Your task to perform on an android device: toggle location history Image 0: 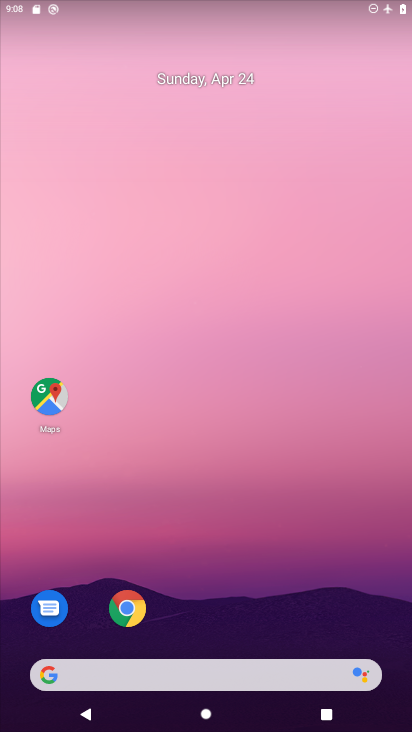
Step 0: click (125, 610)
Your task to perform on an android device: toggle location history Image 1: 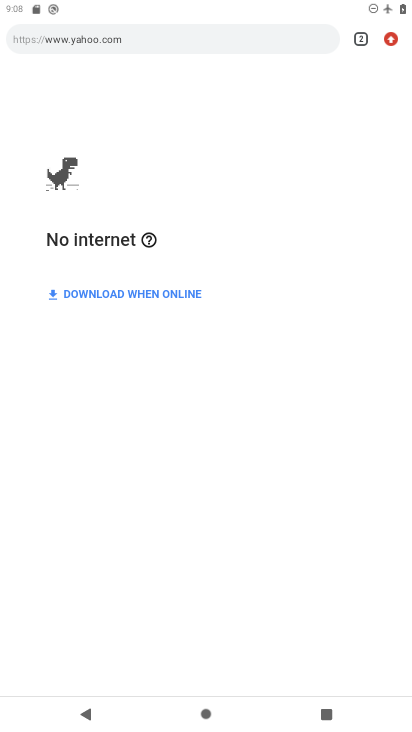
Step 1: drag from (390, 42) to (256, 483)
Your task to perform on an android device: toggle location history Image 2: 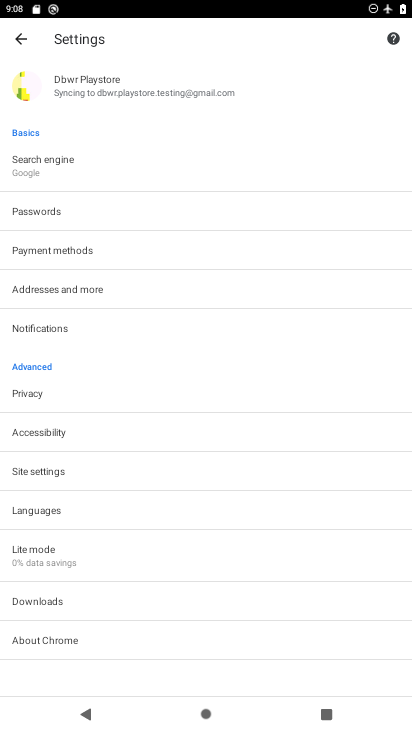
Step 2: drag from (145, 601) to (212, 307)
Your task to perform on an android device: toggle location history Image 3: 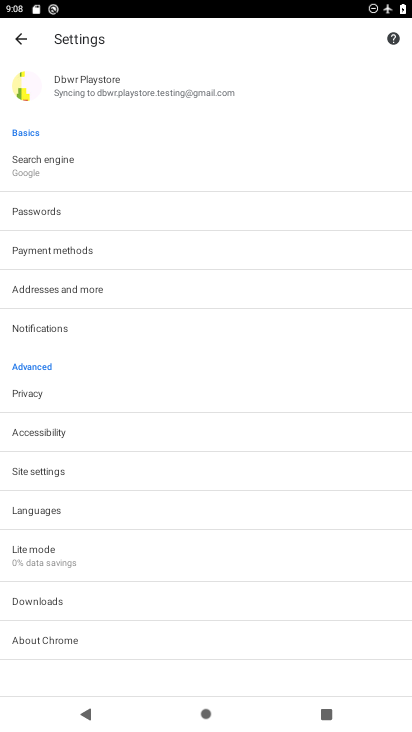
Step 3: press back button
Your task to perform on an android device: toggle location history Image 4: 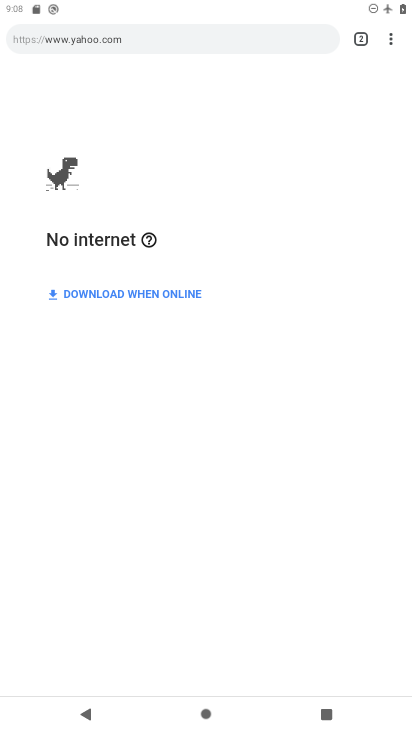
Step 4: press home button
Your task to perform on an android device: toggle location history Image 5: 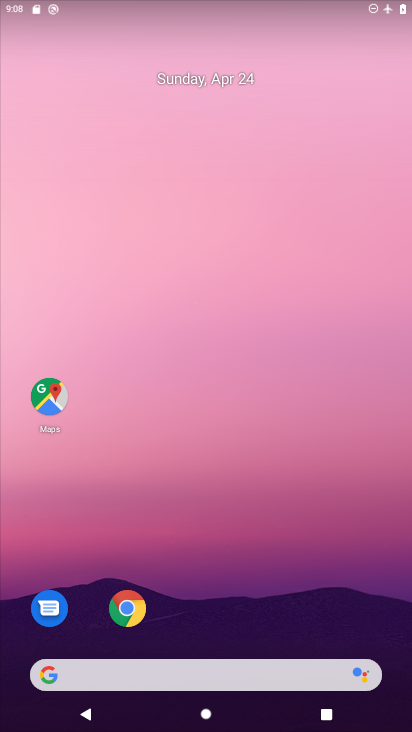
Step 5: drag from (210, 608) to (210, 119)
Your task to perform on an android device: toggle location history Image 6: 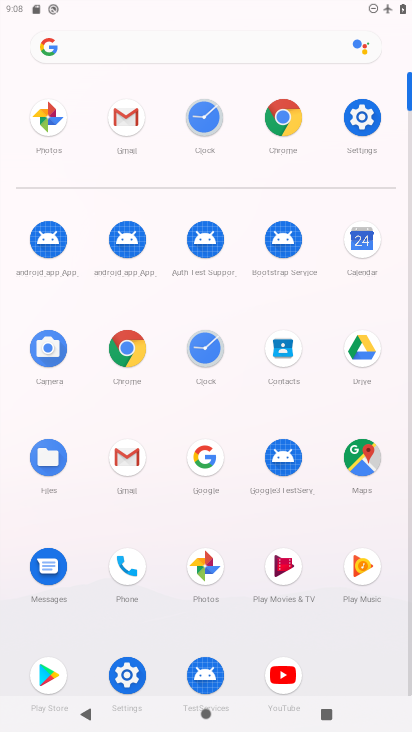
Step 6: click (356, 128)
Your task to perform on an android device: toggle location history Image 7: 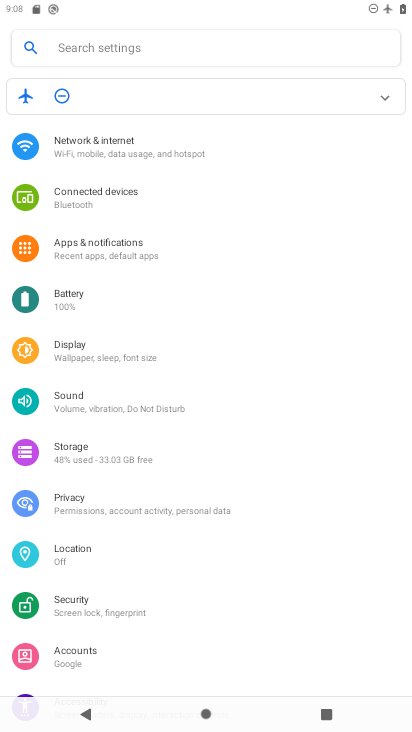
Step 7: click (76, 556)
Your task to perform on an android device: toggle location history Image 8: 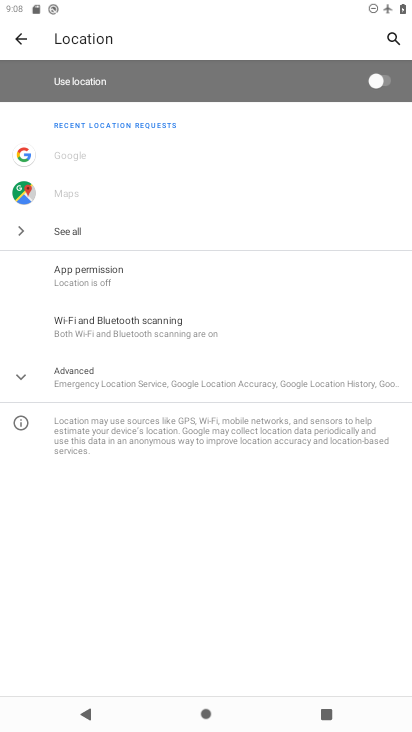
Step 8: click (82, 369)
Your task to perform on an android device: toggle location history Image 9: 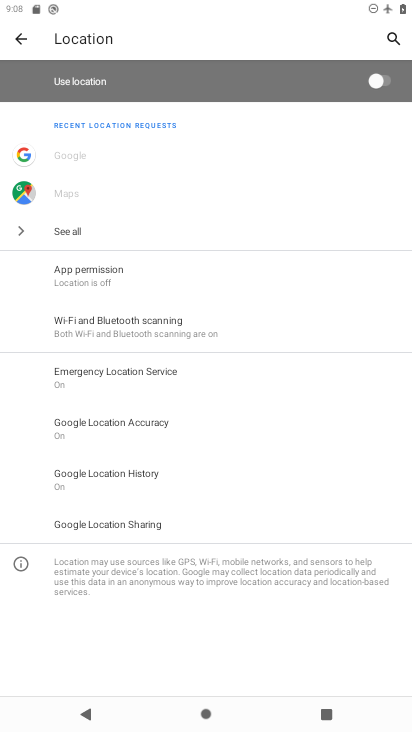
Step 9: click (140, 469)
Your task to perform on an android device: toggle location history Image 10: 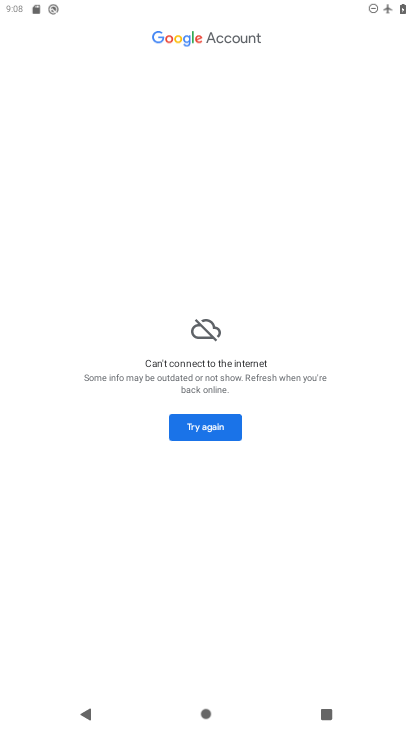
Step 10: task complete